Your task to perform on an android device: Go to ESPN.com Image 0: 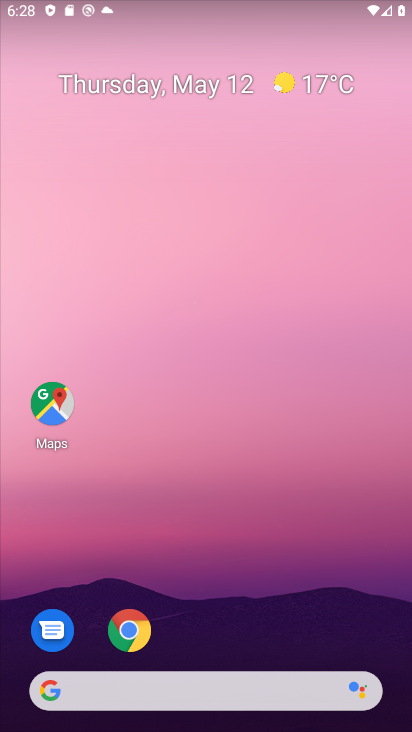
Step 0: drag from (331, 632) to (239, 70)
Your task to perform on an android device: Go to ESPN.com Image 1: 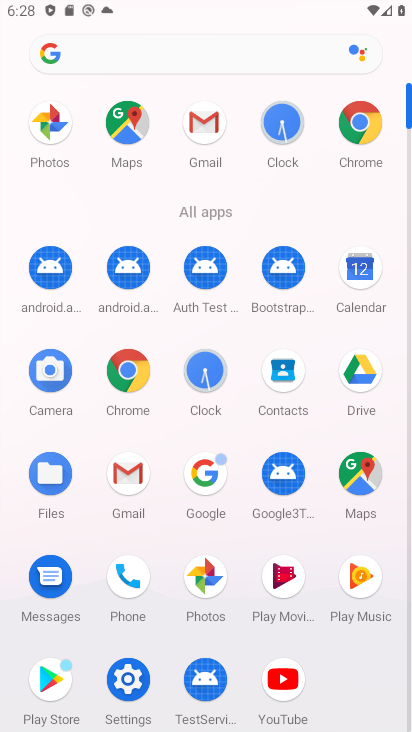
Step 1: click (114, 361)
Your task to perform on an android device: Go to ESPN.com Image 2: 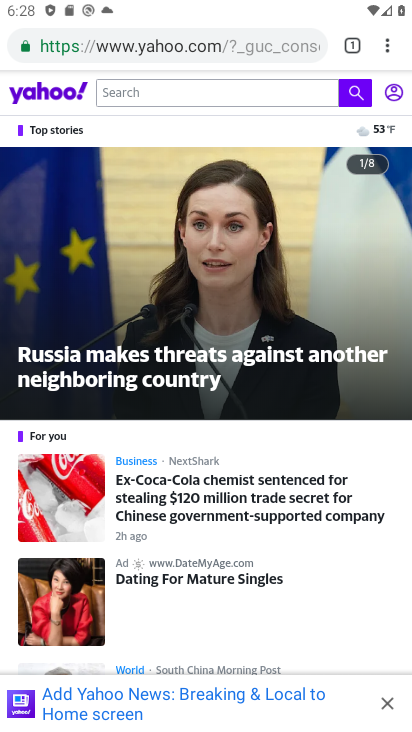
Step 2: press back button
Your task to perform on an android device: Go to ESPN.com Image 3: 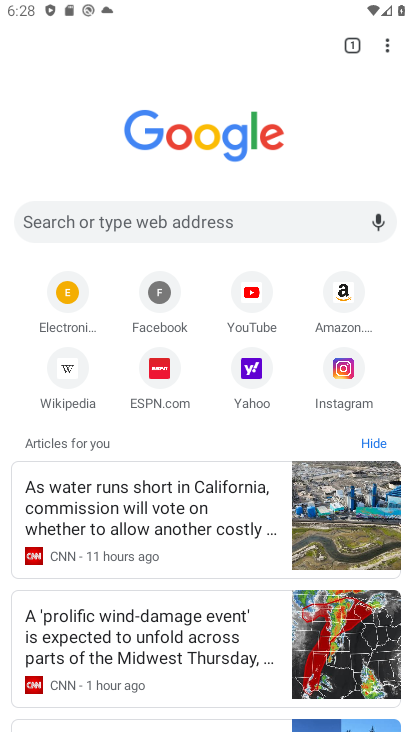
Step 3: click (148, 372)
Your task to perform on an android device: Go to ESPN.com Image 4: 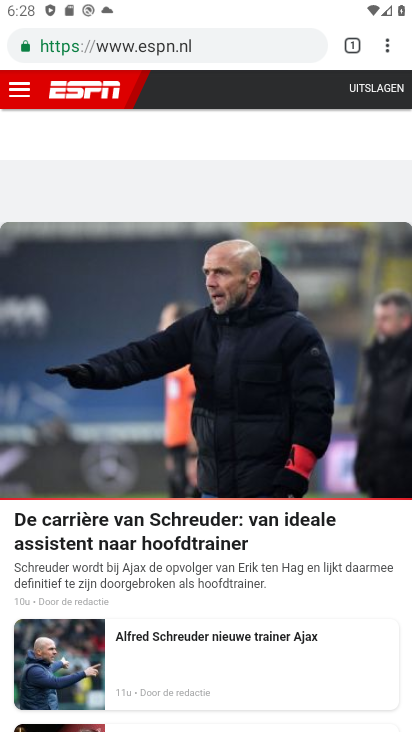
Step 4: task complete